Your task to perform on an android device: check out phone information Image 0: 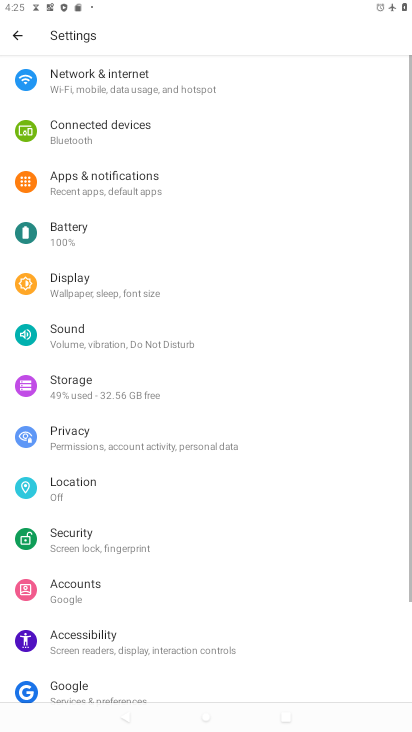
Step 0: press home button
Your task to perform on an android device: check out phone information Image 1: 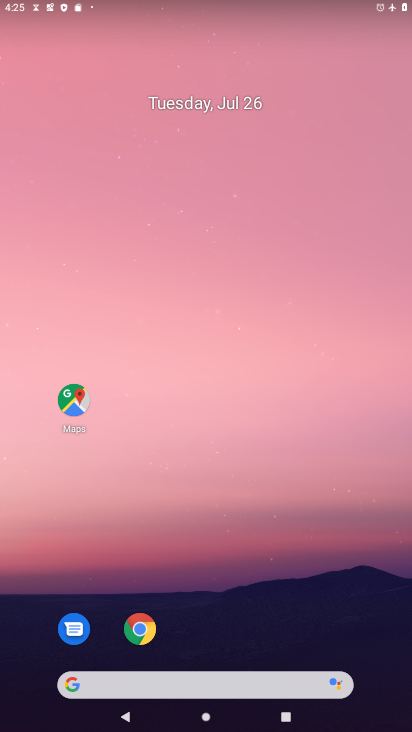
Step 1: drag from (240, 724) to (253, 132)
Your task to perform on an android device: check out phone information Image 2: 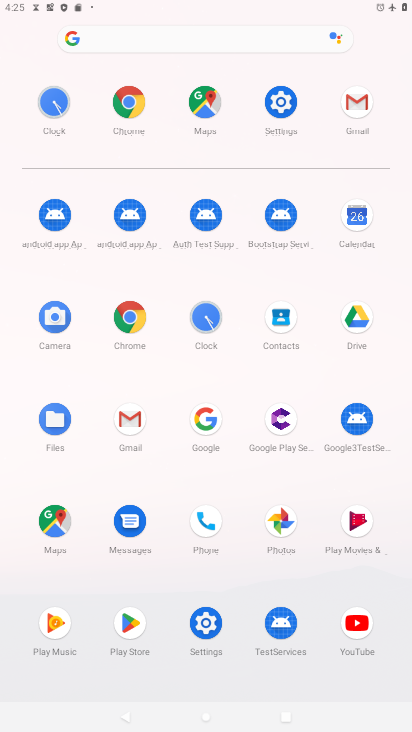
Step 2: click (286, 99)
Your task to perform on an android device: check out phone information Image 3: 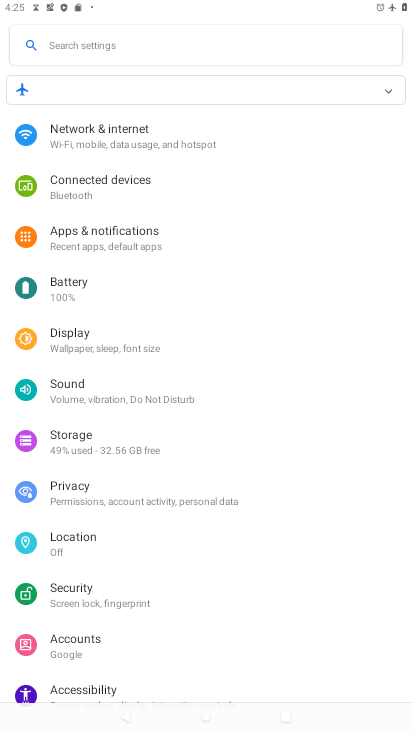
Step 3: drag from (102, 666) to (124, 369)
Your task to perform on an android device: check out phone information Image 4: 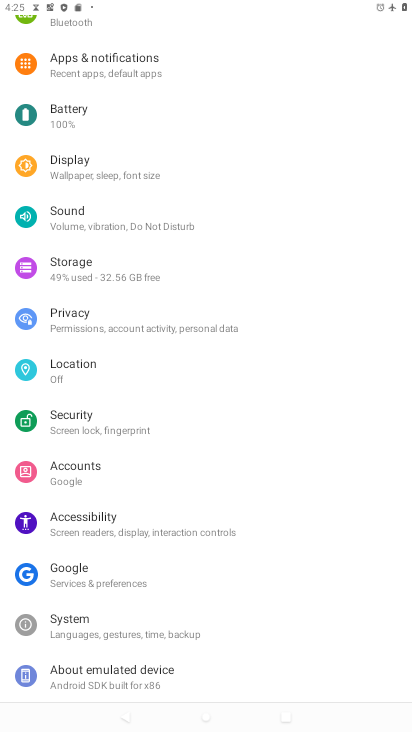
Step 4: click (103, 670)
Your task to perform on an android device: check out phone information Image 5: 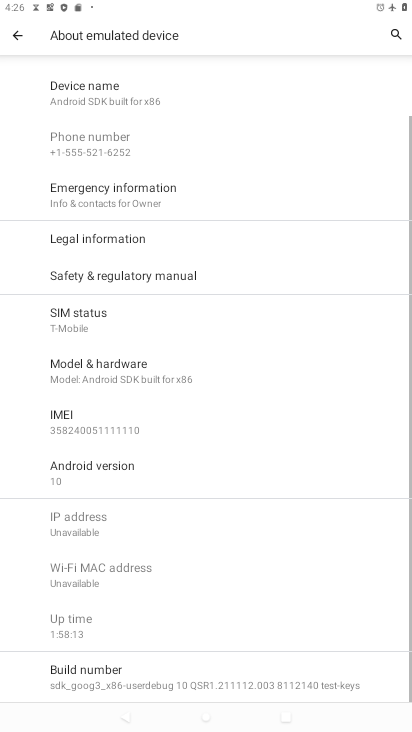
Step 5: task complete